Your task to perform on an android device: open app "Walmart Shopping & Grocery" (install if not already installed) and enter user name: "Hans@icloud.com" and password: "executing" Image 0: 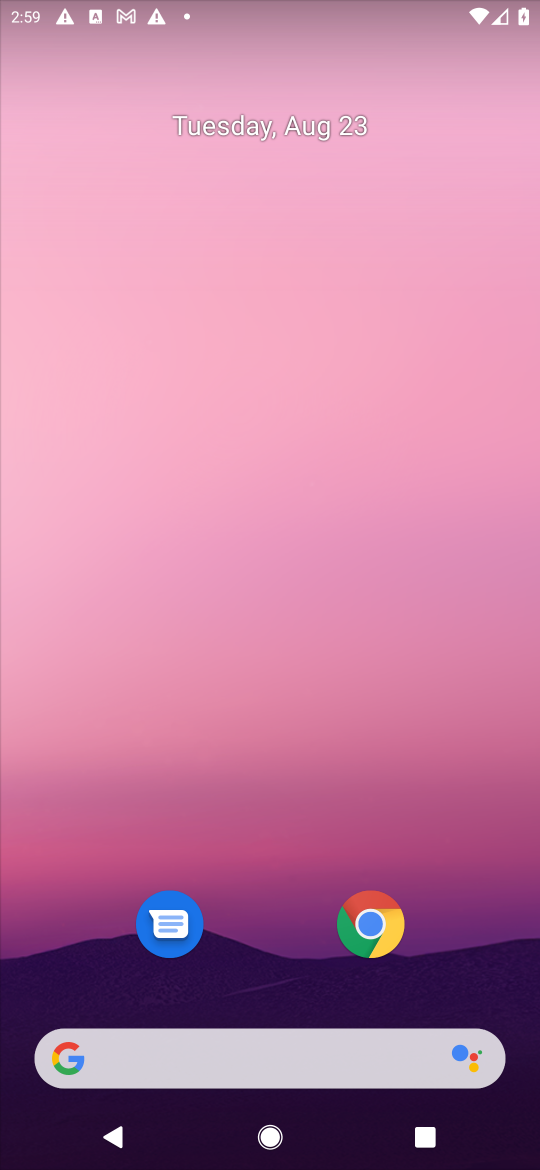
Step 0: press home button
Your task to perform on an android device: open app "Walmart Shopping & Grocery" (install if not already installed) and enter user name: "Hans@icloud.com" and password: "executing" Image 1: 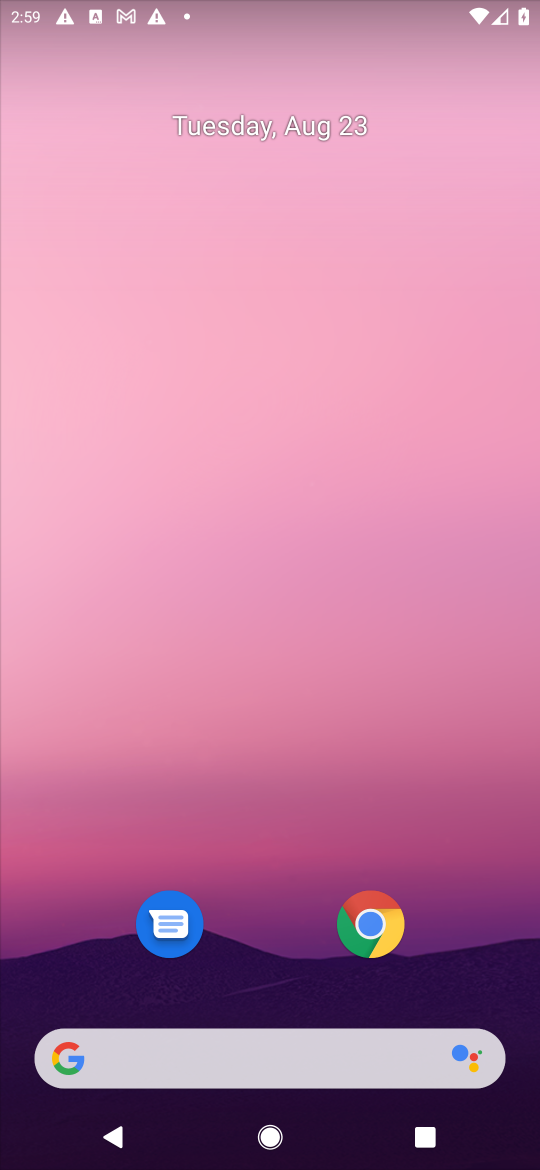
Step 1: drag from (444, 974) to (464, 170)
Your task to perform on an android device: open app "Walmart Shopping & Grocery" (install if not already installed) and enter user name: "Hans@icloud.com" and password: "executing" Image 2: 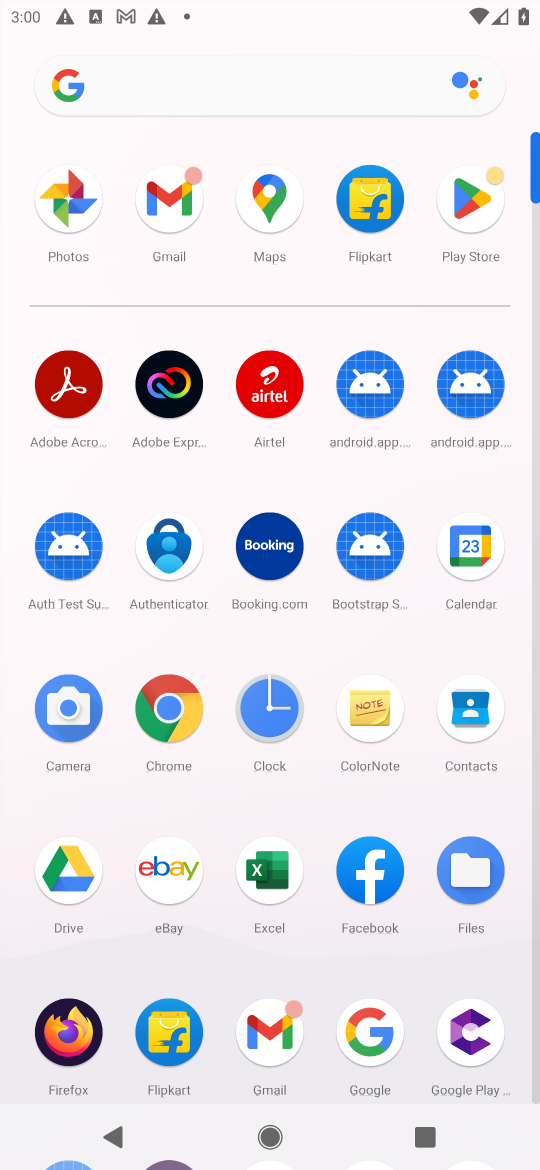
Step 2: click (472, 212)
Your task to perform on an android device: open app "Walmart Shopping & Grocery" (install if not already installed) and enter user name: "Hans@icloud.com" and password: "executing" Image 3: 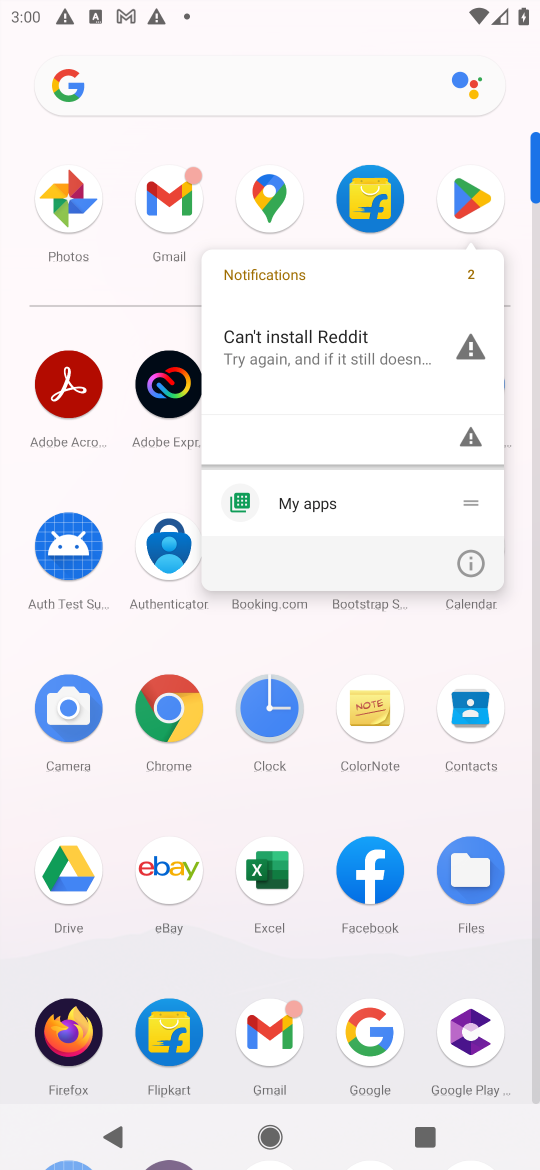
Step 3: click (468, 185)
Your task to perform on an android device: open app "Walmart Shopping & Grocery" (install if not already installed) and enter user name: "Hans@icloud.com" and password: "executing" Image 4: 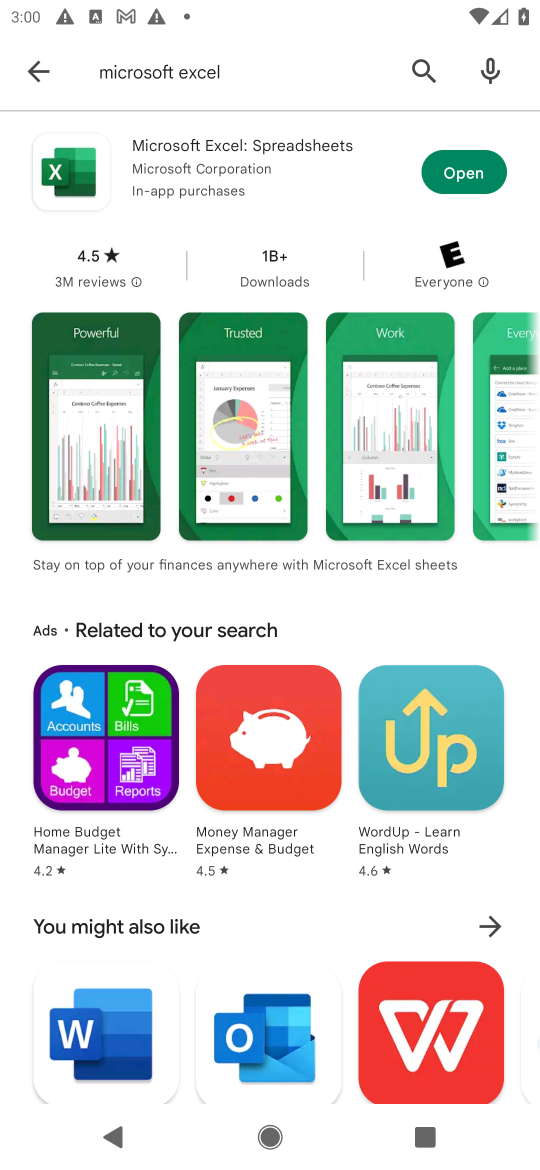
Step 4: press back button
Your task to perform on an android device: open app "Walmart Shopping & Grocery" (install if not already installed) and enter user name: "Hans@icloud.com" and password: "executing" Image 5: 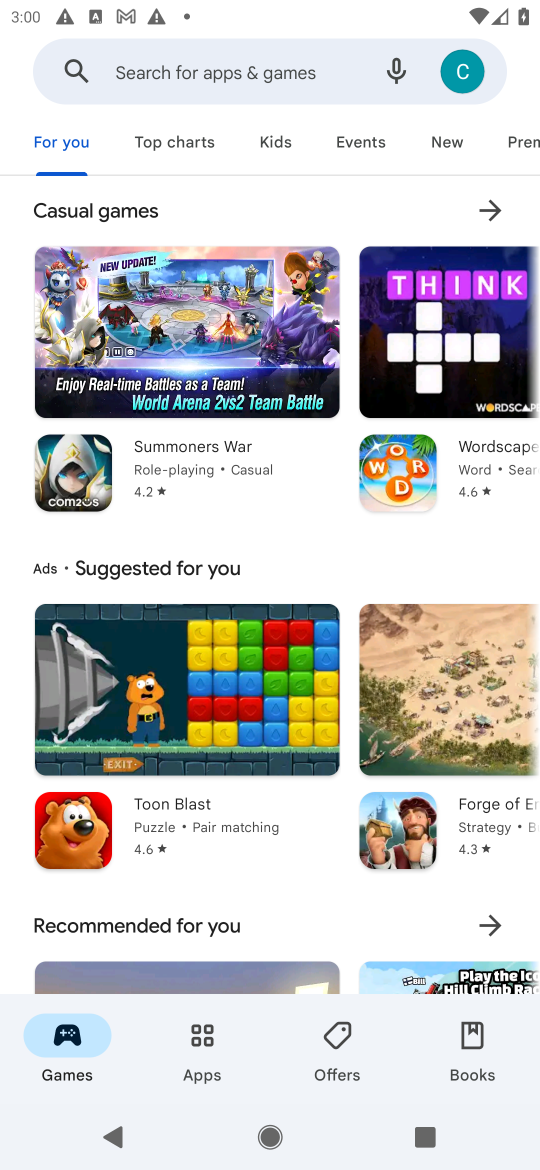
Step 5: click (227, 66)
Your task to perform on an android device: open app "Walmart Shopping & Grocery" (install if not already installed) and enter user name: "Hans@icloud.com" and password: "executing" Image 6: 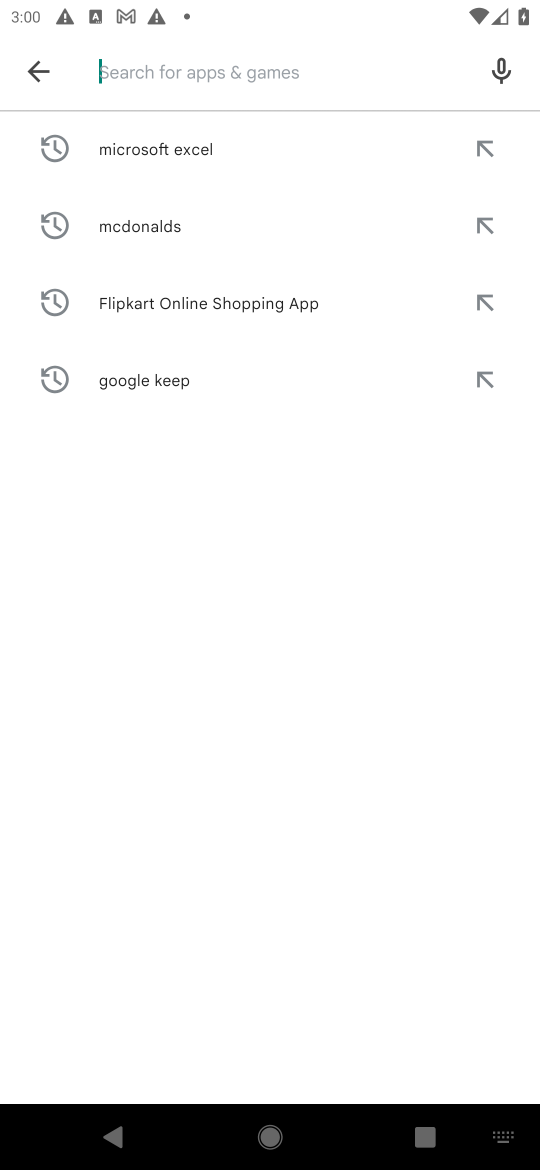
Step 6: press enter
Your task to perform on an android device: open app "Walmart Shopping & Grocery" (install if not already installed) and enter user name: "Hans@icloud.com" and password: "executing" Image 7: 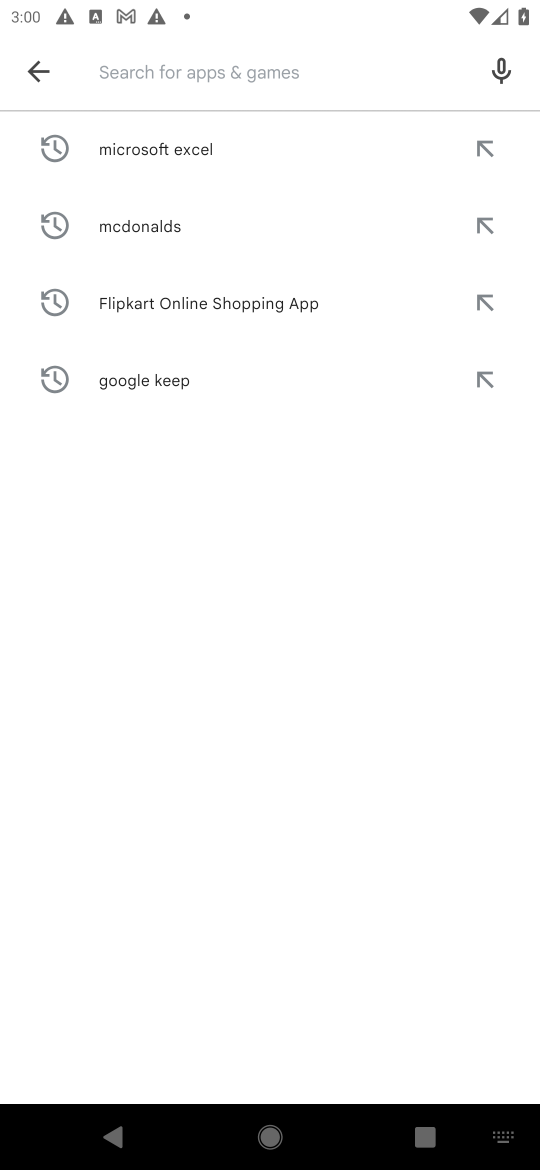
Step 7: type "Walmart Shopping & Grocery"
Your task to perform on an android device: open app "Walmart Shopping & Grocery" (install if not already installed) and enter user name: "Hans@icloud.com" and password: "executing" Image 8: 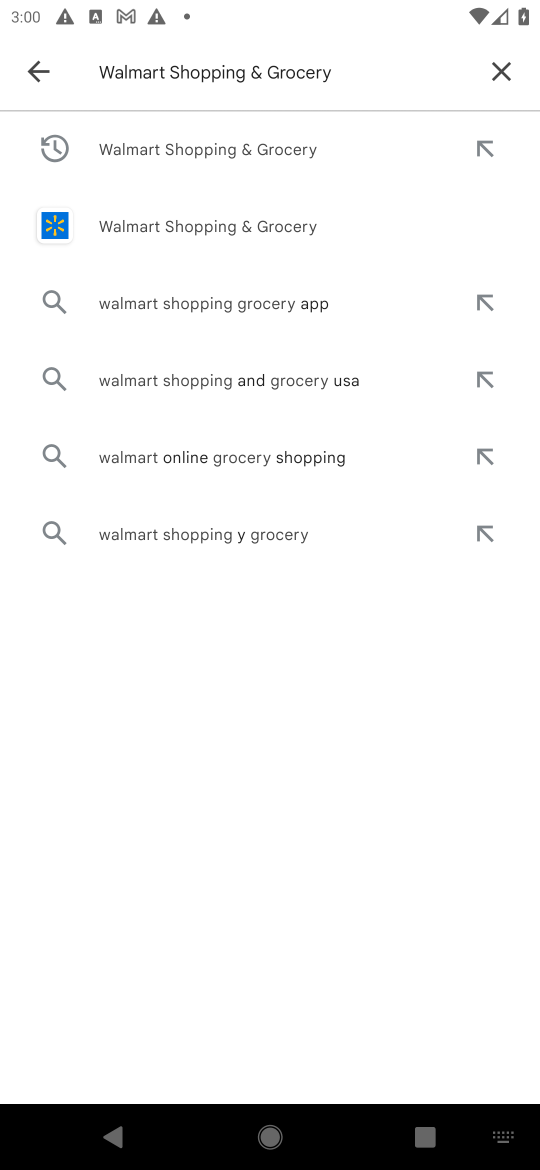
Step 8: click (234, 223)
Your task to perform on an android device: open app "Walmart Shopping & Grocery" (install if not already installed) and enter user name: "Hans@icloud.com" and password: "executing" Image 9: 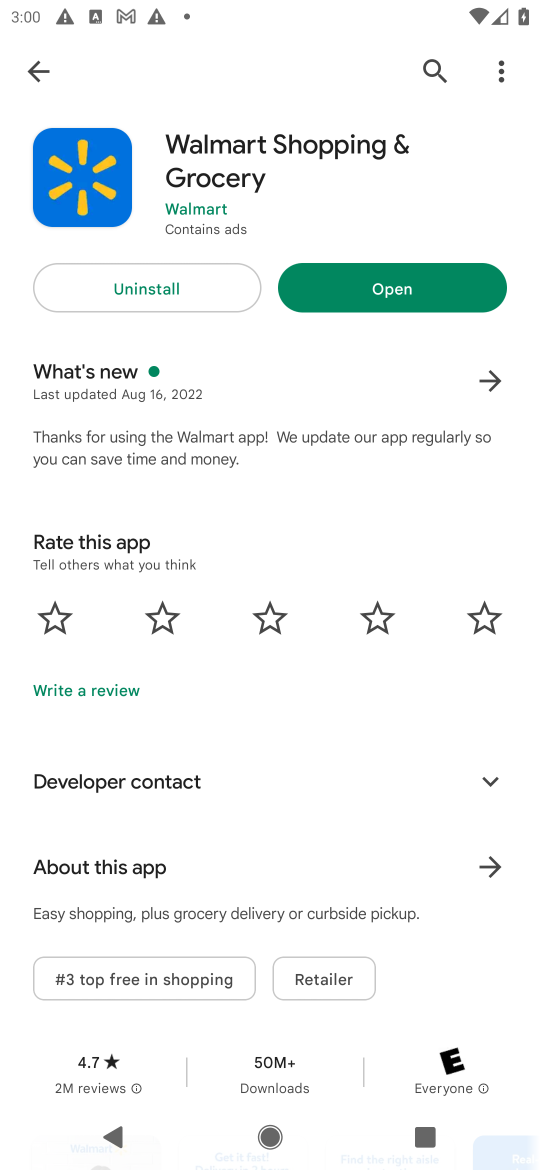
Step 9: click (417, 290)
Your task to perform on an android device: open app "Walmart Shopping & Grocery" (install if not already installed) and enter user name: "Hans@icloud.com" and password: "executing" Image 10: 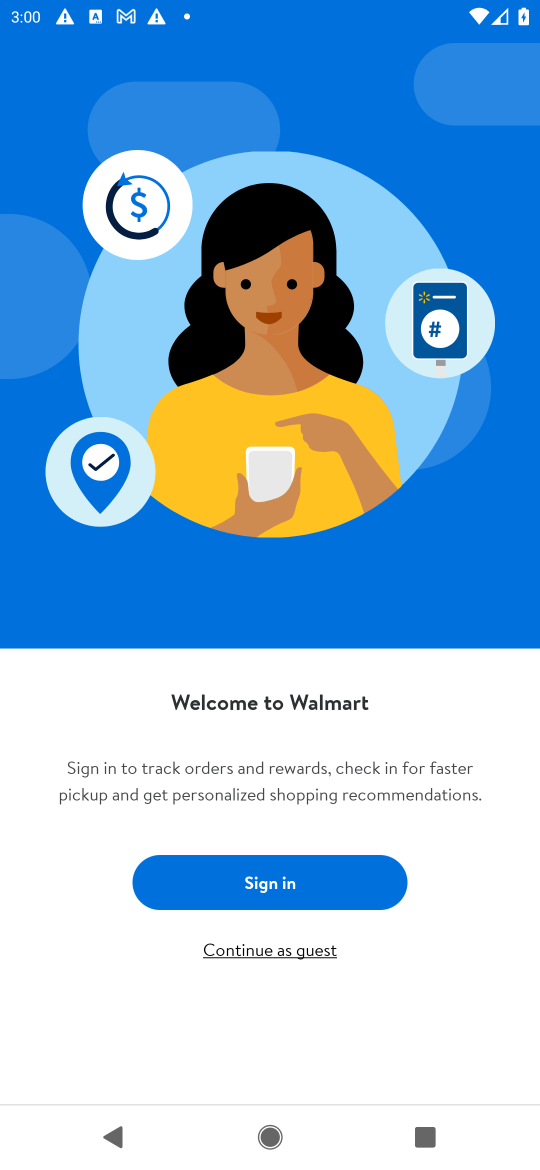
Step 10: click (322, 887)
Your task to perform on an android device: open app "Walmart Shopping & Grocery" (install if not already installed) and enter user name: "Hans@icloud.com" and password: "executing" Image 11: 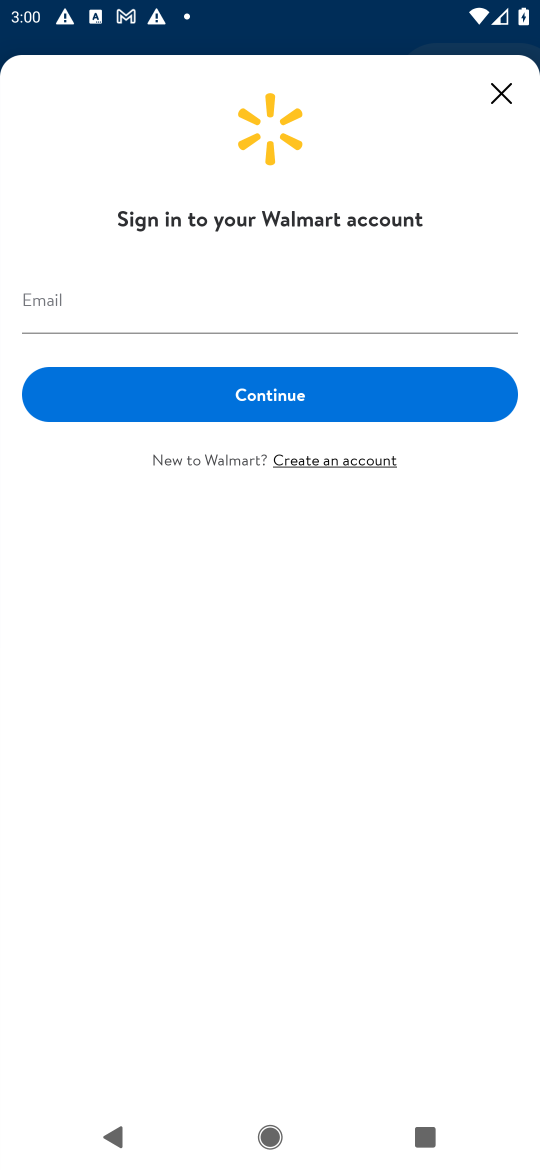
Step 11: click (180, 282)
Your task to perform on an android device: open app "Walmart Shopping & Grocery" (install if not already installed) and enter user name: "Hans@icloud.com" and password: "executing" Image 12: 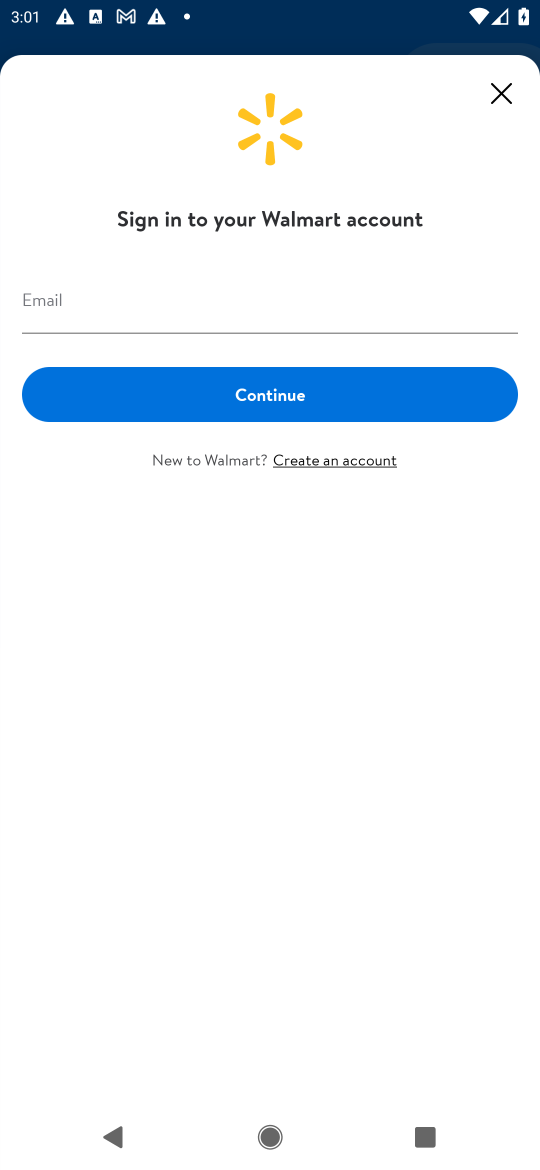
Step 12: click (121, 314)
Your task to perform on an android device: open app "Walmart Shopping & Grocery" (install if not already installed) and enter user name: "Hans@icloud.com" and password: "executing" Image 13: 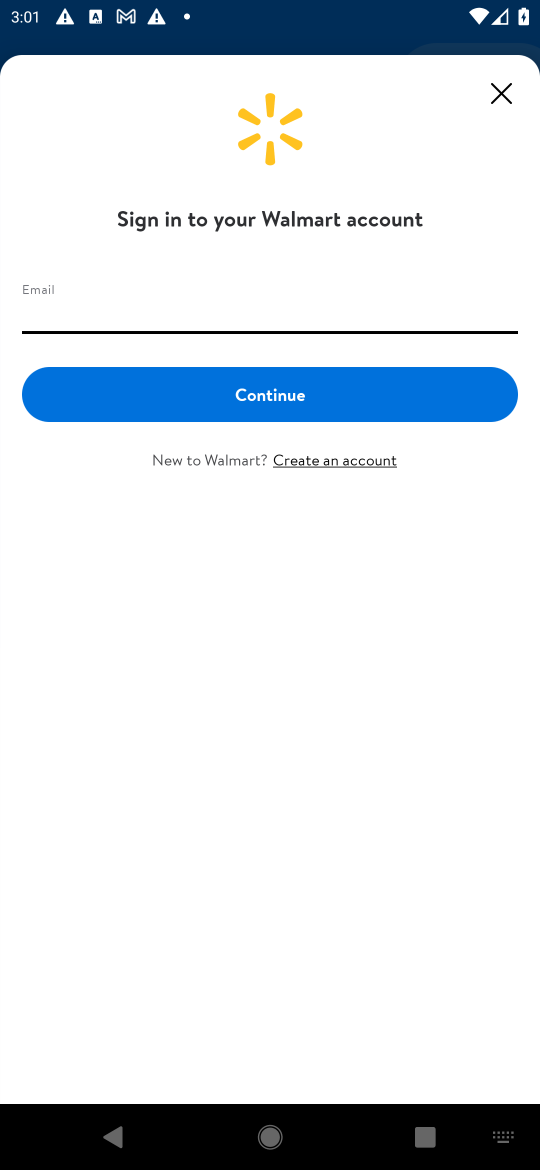
Step 13: press enter
Your task to perform on an android device: open app "Walmart Shopping & Grocery" (install if not already installed) and enter user name: "Hans@icloud.com" and password: "executing" Image 14: 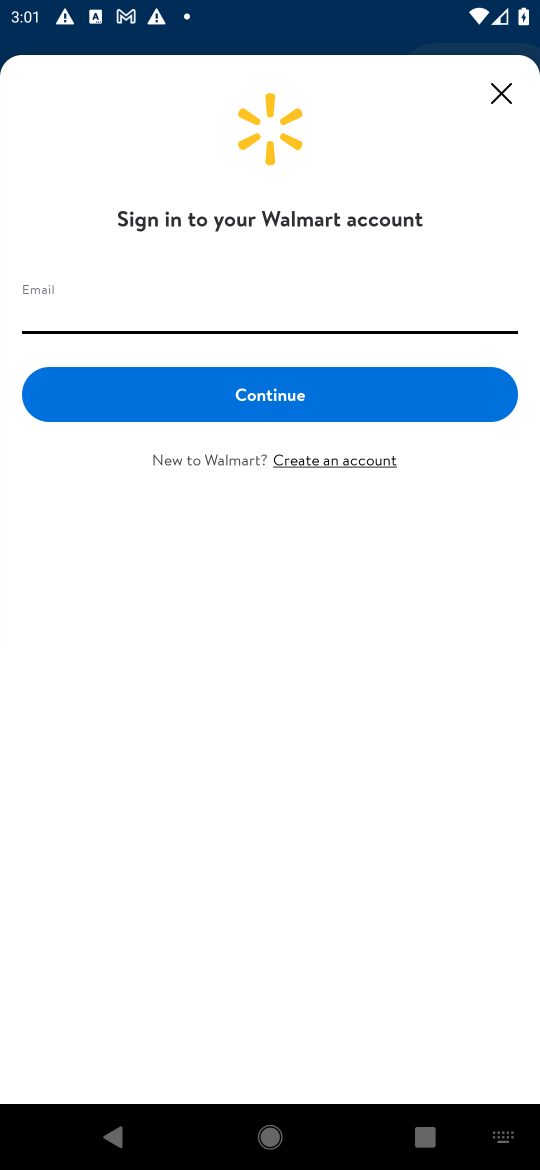
Step 14: type "Hans@icloud.com"
Your task to perform on an android device: open app "Walmart Shopping & Grocery" (install if not already installed) and enter user name: "Hans@icloud.com" and password: "executing" Image 15: 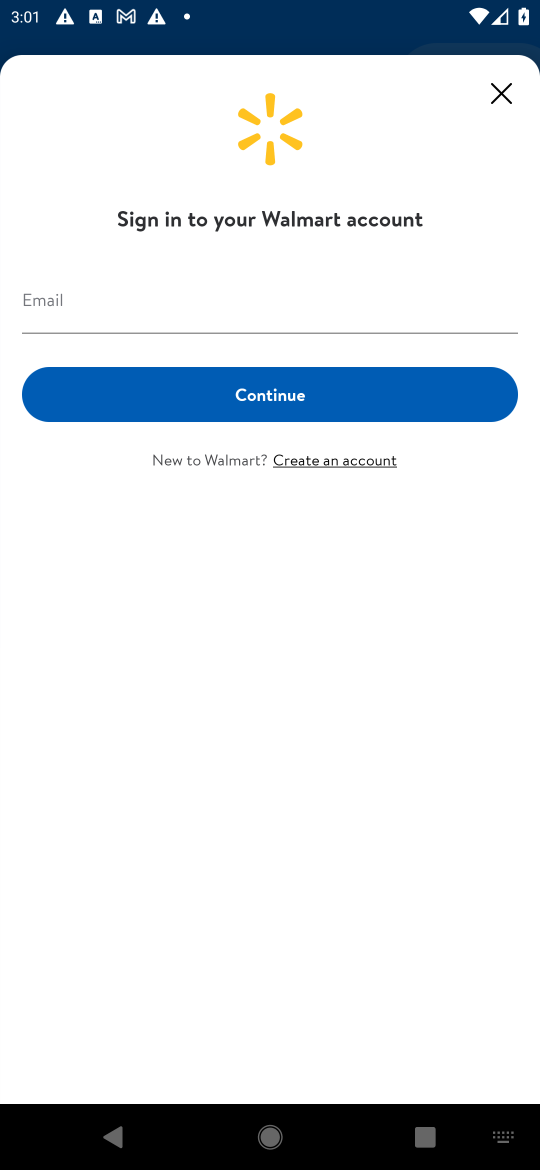
Step 15: click (118, 307)
Your task to perform on an android device: open app "Walmart Shopping & Grocery" (install if not already installed) and enter user name: "Hans@icloud.com" and password: "executing" Image 16: 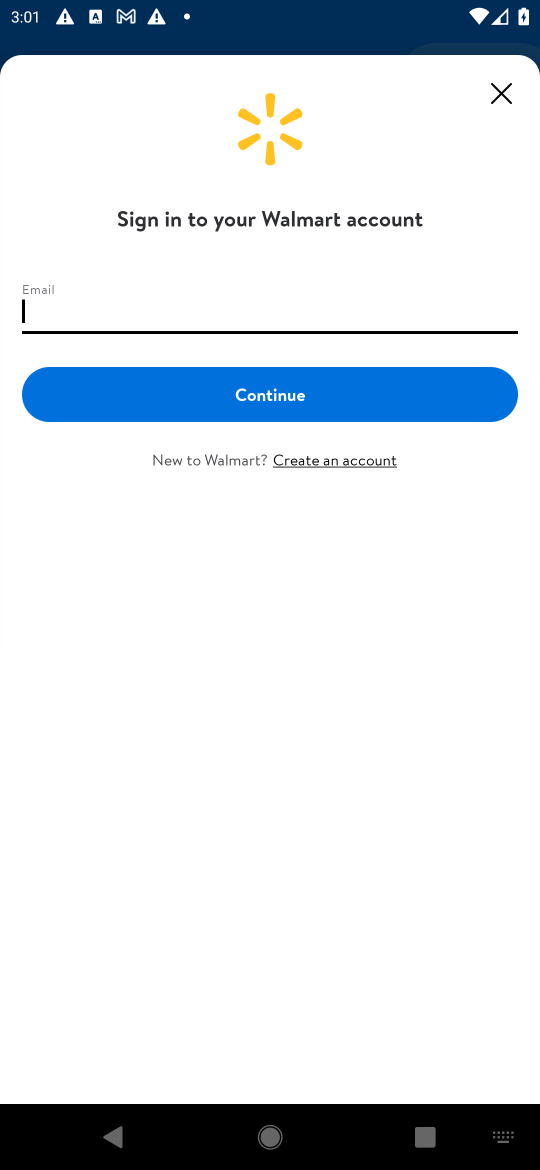
Step 16: type "Hans@icloud.com"
Your task to perform on an android device: open app "Walmart Shopping & Grocery" (install if not already installed) and enter user name: "Hans@icloud.com" and password: "executing" Image 17: 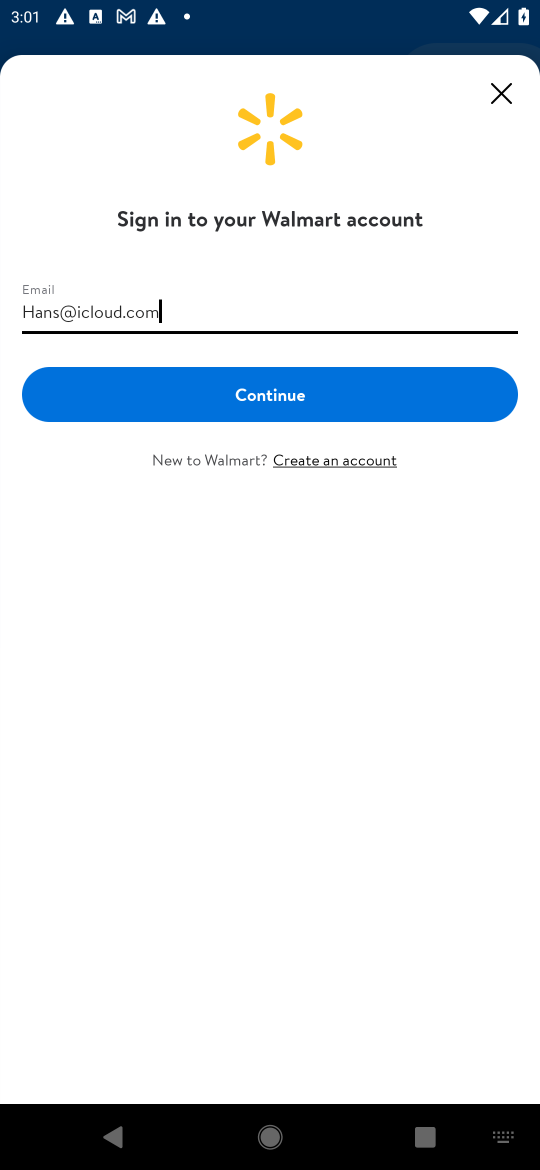
Step 17: click (344, 381)
Your task to perform on an android device: open app "Walmart Shopping & Grocery" (install if not already installed) and enter user name: "Hans@icloud.com" and password: "executing" Image 18: 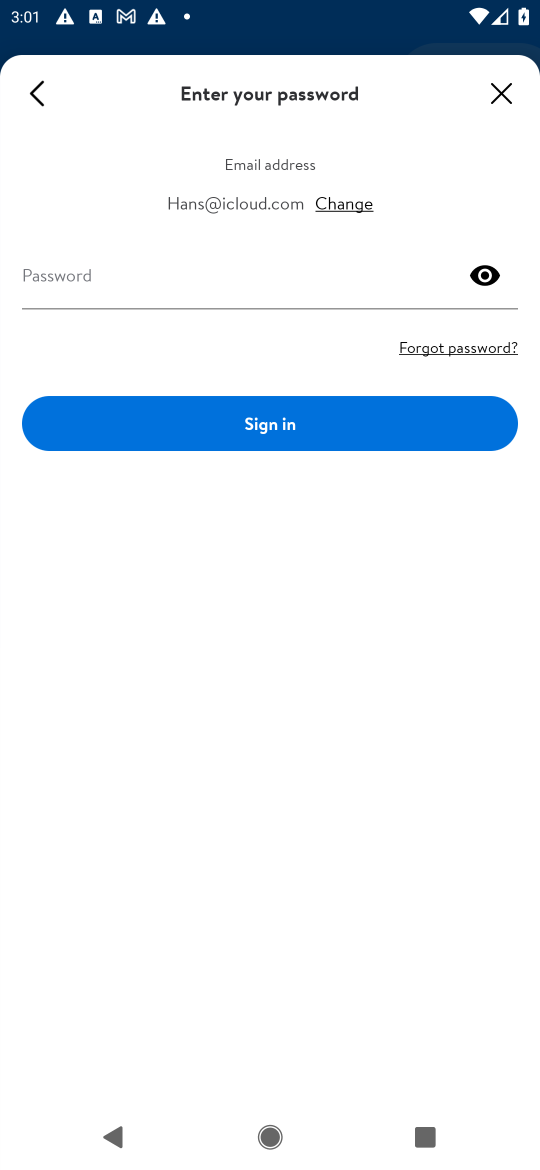
Step 18: click (155, 279)
Your task to perform on an android device: open app "Walmart Shopping & Grocery" (install if not already installed) and enter user name: "Hans@icloud.com" and password: "executing" Image 19: 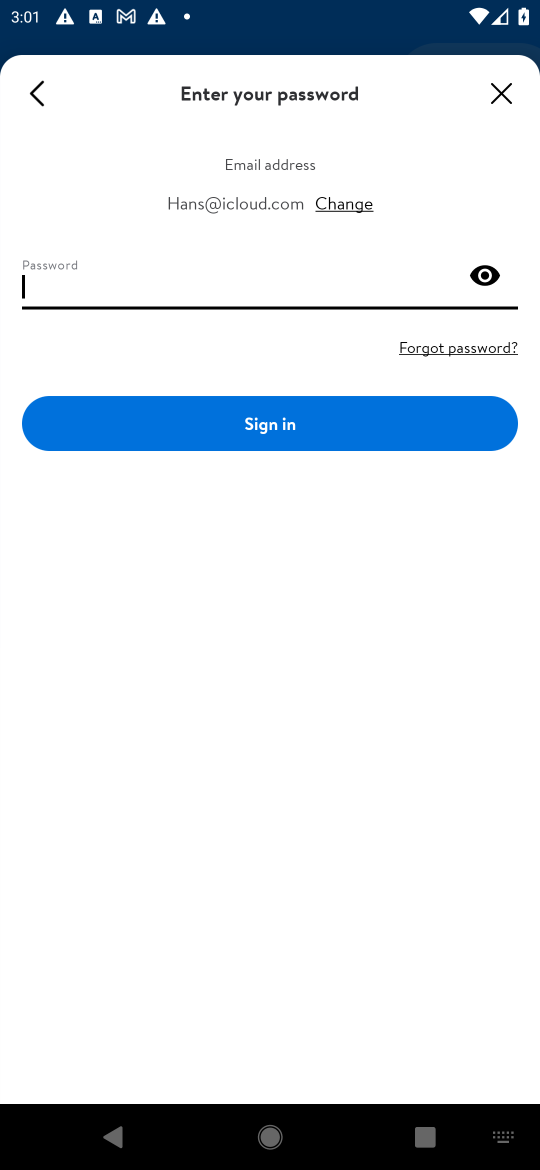
Step 19: type "executing"
Your task to perform on an android device: open app "Walmart Shopping & Grocery" (install if not already installed) and enter user name: "Hans@icloud.com" and password: "executing" Image 20: 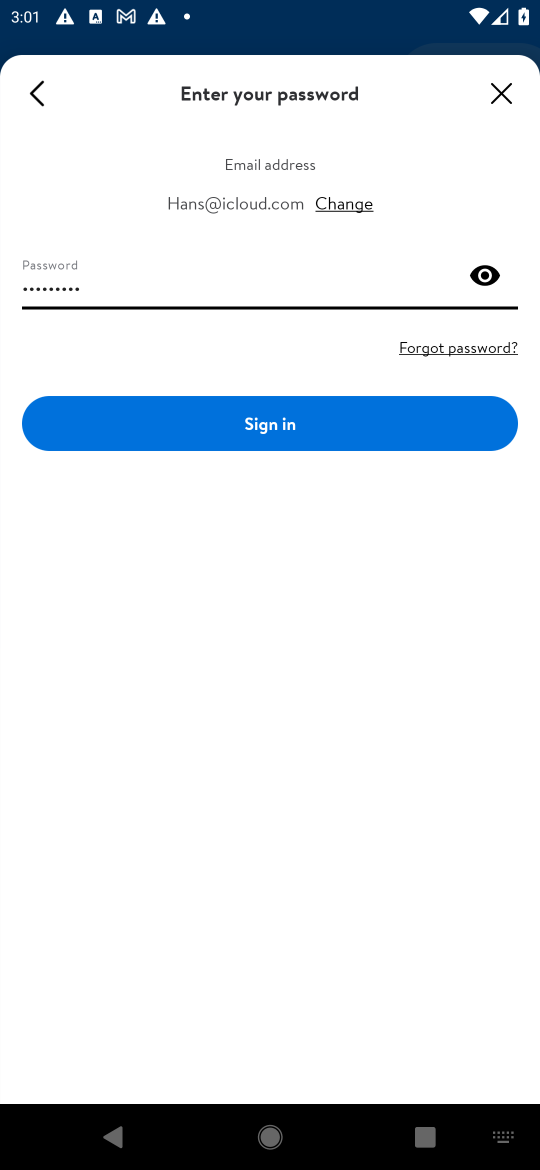
Step 20: task complete